Your task to perform on an android device: Go to Google maps Image 0: 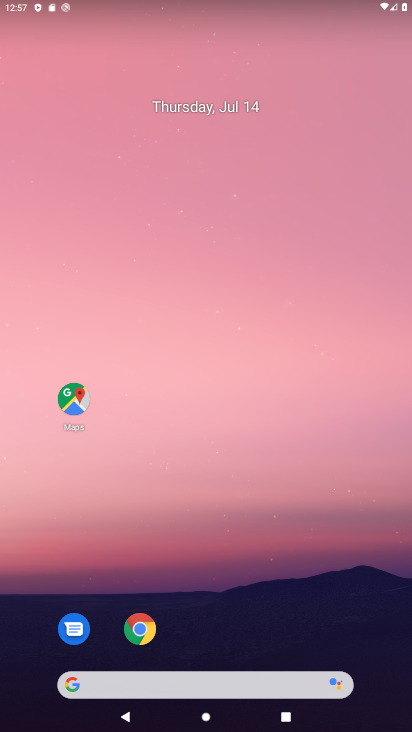
Step 0: press home button
Your task to perform on an android device: Go to Google maps Image 1: 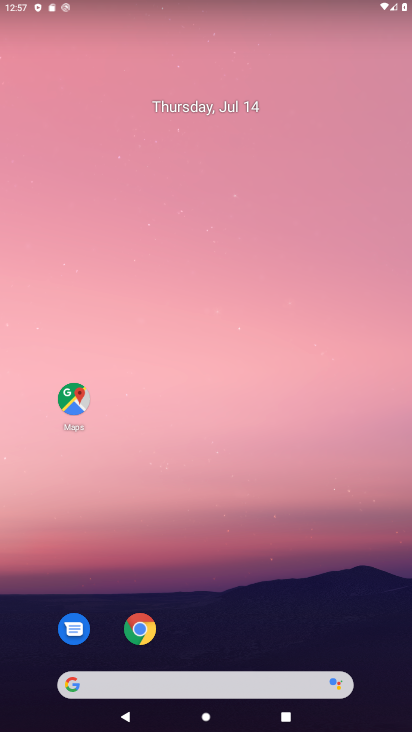
Step 1: click (233, 146)
Your task to perform on an android device: Go to Google maps Image 2: 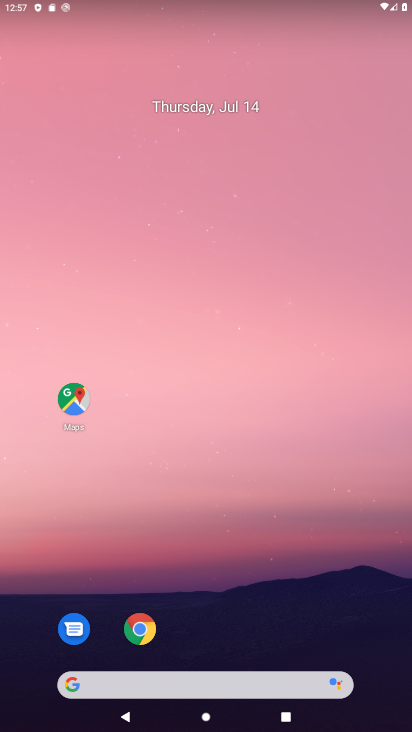
Step 2: drag from (192, 565) to (204, 446)
Your task to perform on an android device: Go to Google maps Image 3: 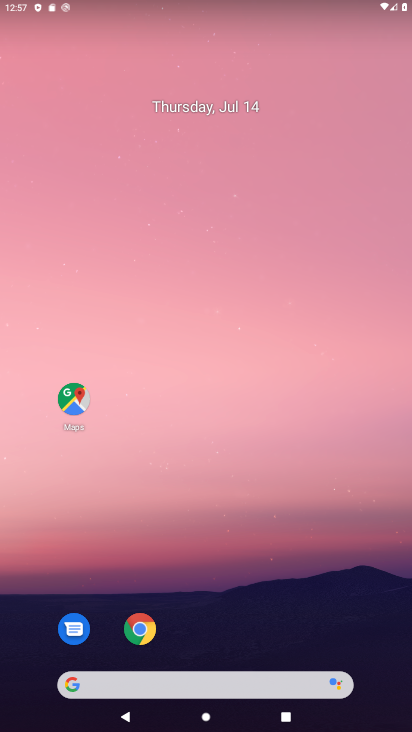
Step 3: drag from (180, 649) to (314, 5)
Your task to perform on an android device: Go to Google maps Image 4: 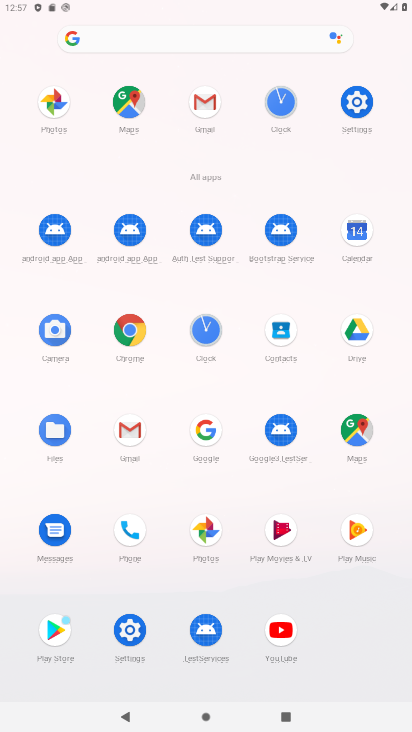
Step 4: drag from (178, 625) to (186, 164)
Your task to perform on an android device: Go to Google maps Image 5: 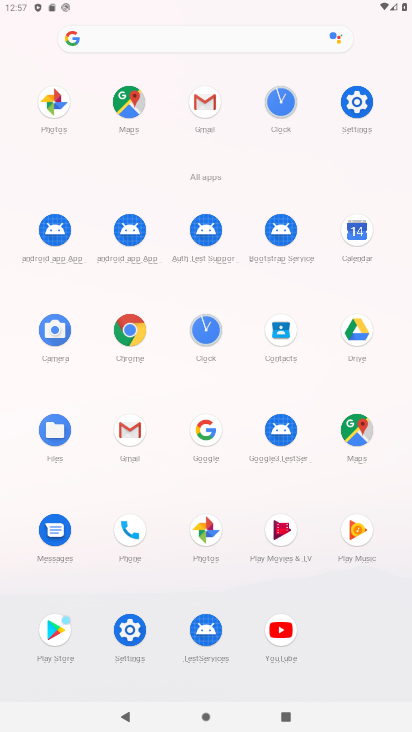
Step 5: drag from (170, 603) to (165, 217)
Your task to perform on an android device: Go to Google maps Image 6: 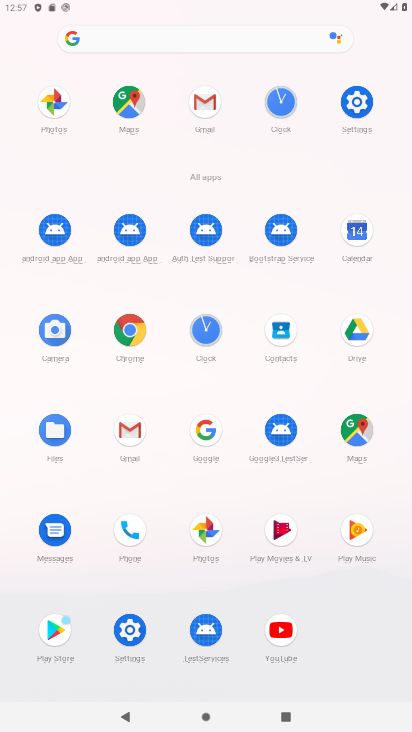
Step 6: click (353, 423)
Your task to perform on an android device: Go to Google maps Image 7: 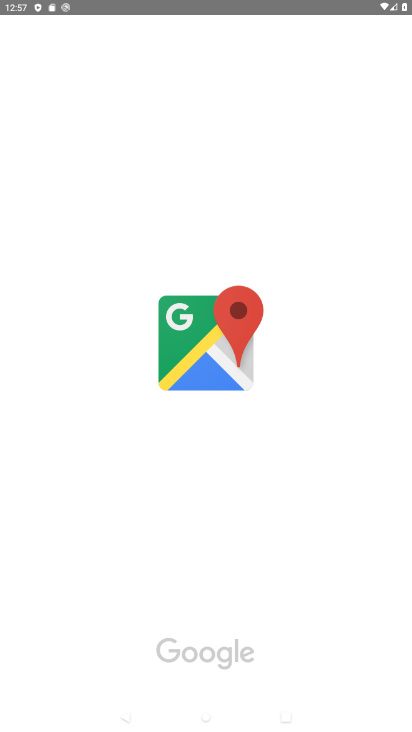
Step 7: task complete